Your task to perform on an android device: install app "Booking.com: Hotels and more" Image 0: 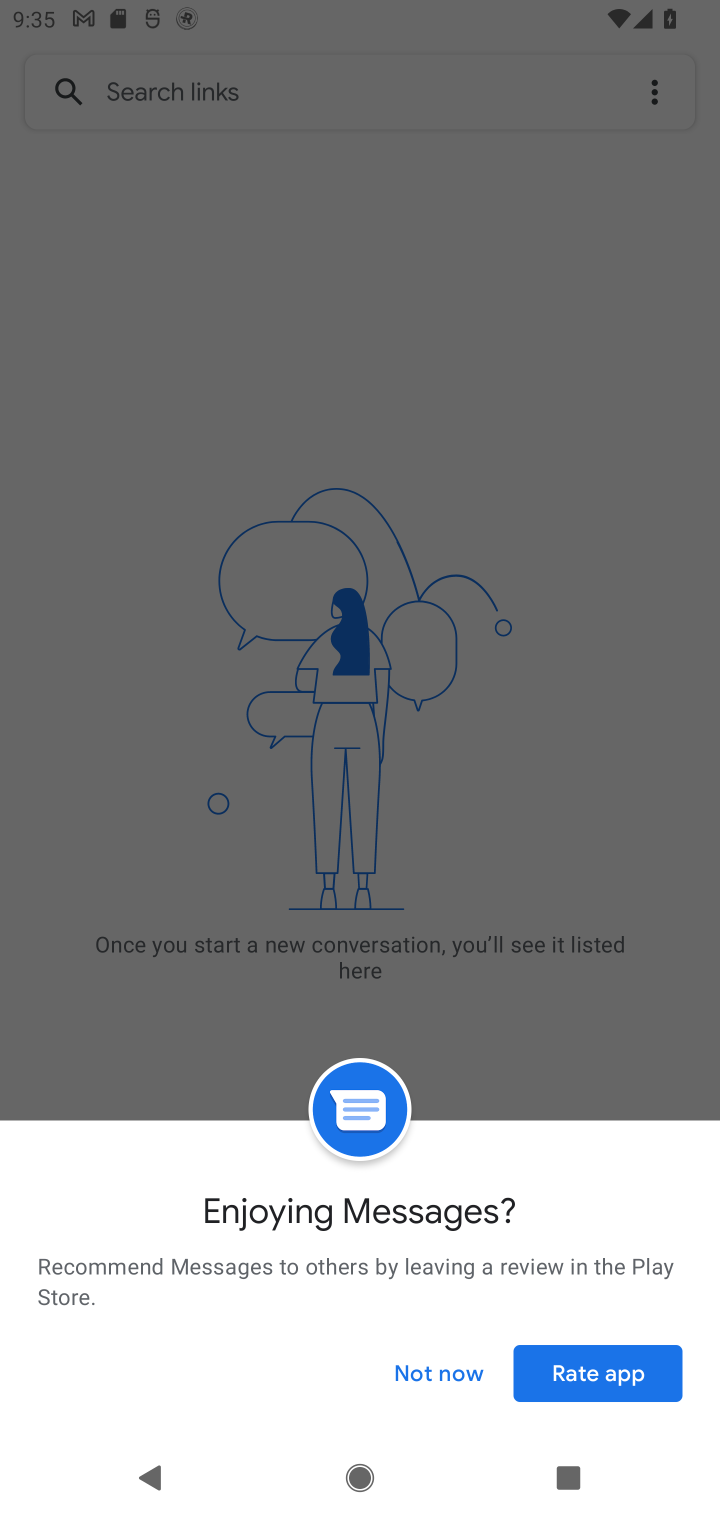
Step 0: press home button
Your task to perform on an android device: install app "Booking.com: Hotels and more" Image 1: 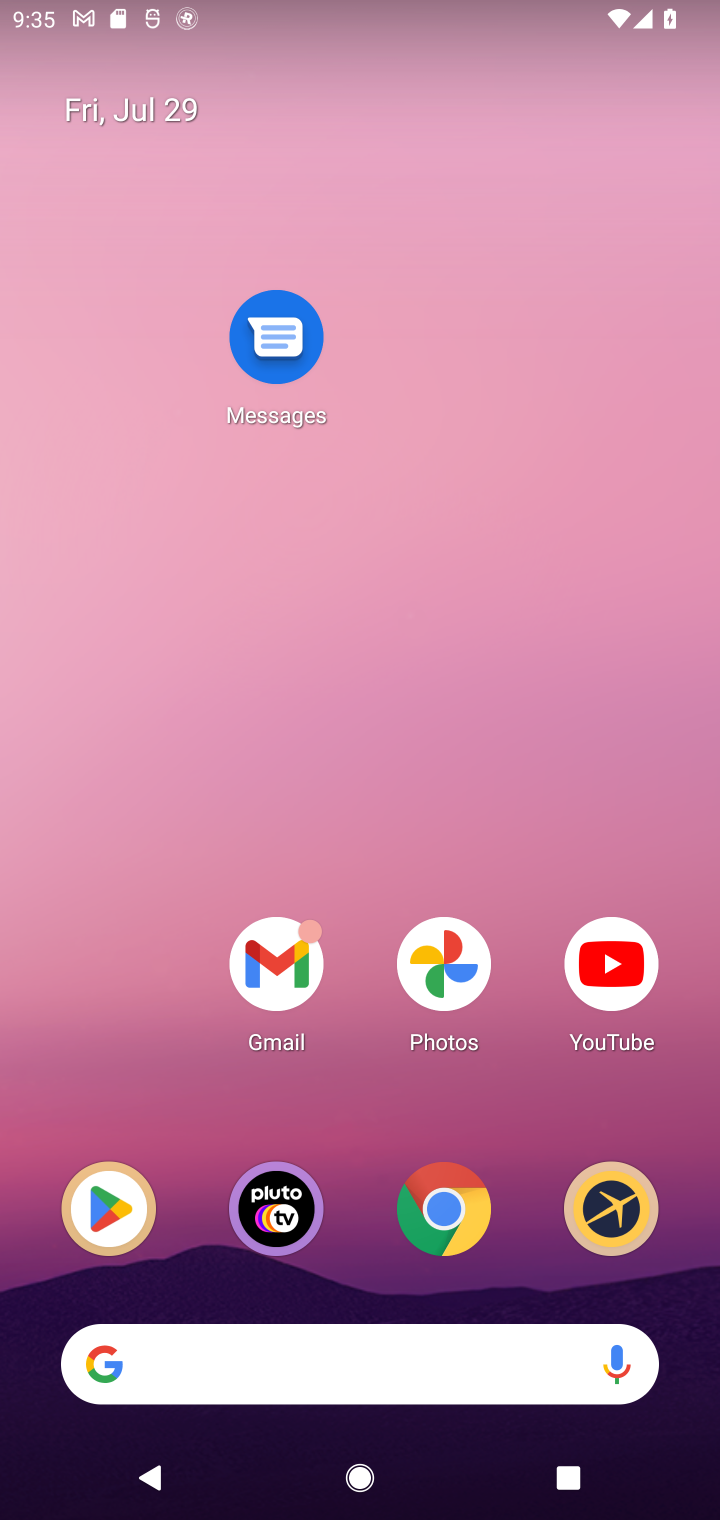
Step 1: drag from (245, 1363) to (415, 198)
Your task to perform on an android device: install app "Booking.com: Hotels and more" Image 2: 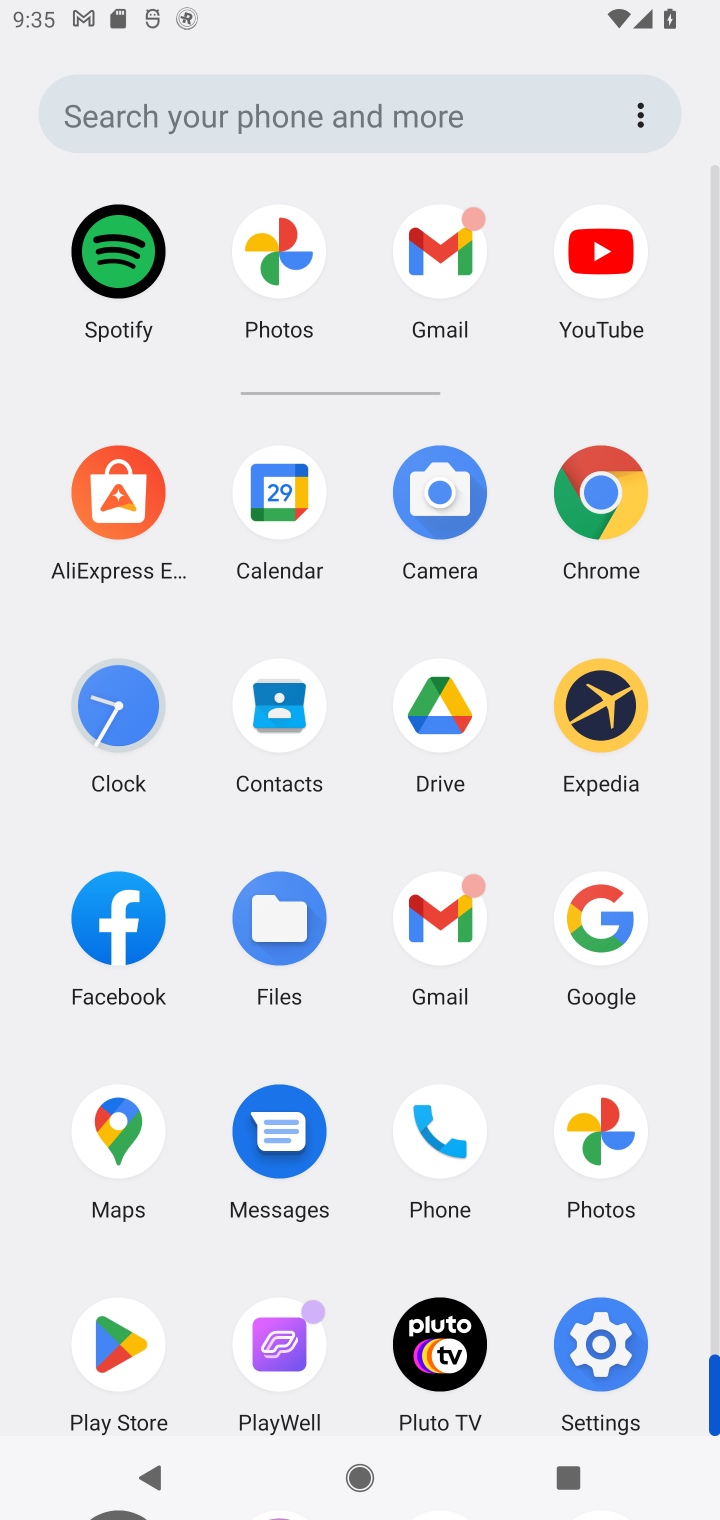
Step 2: drag from (372, 1059) to (371, 554)
Your task to perform on an android device: install app "Booking.com: Hotels and more" Image 3: 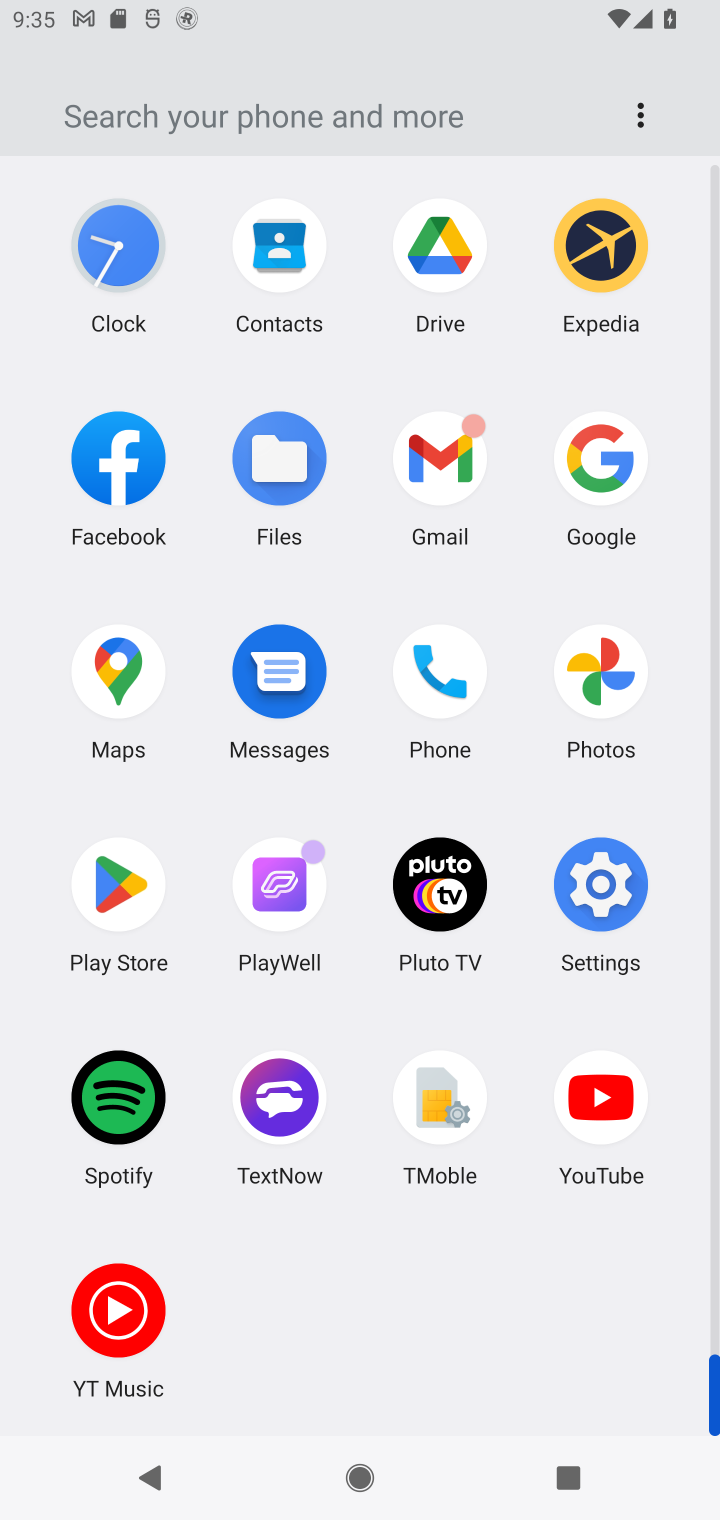
Step 3: click (119, 889)
Your task to perform on an android device: install app "Booking.com: Hotels and more" Image 4: 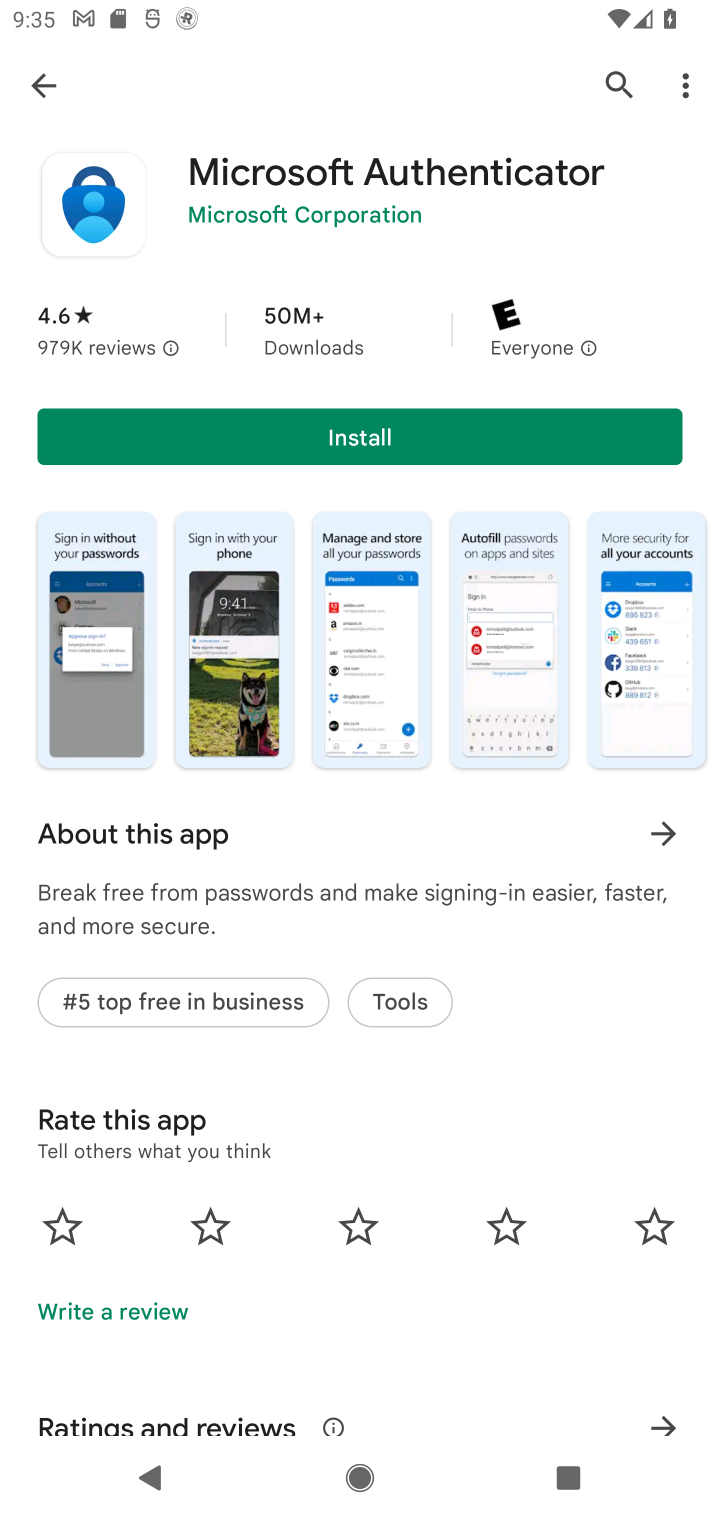
Step 4: click (614, 81)
Your task to perform on an android device: install app "Booking.com: Hotels and more" Image 5: 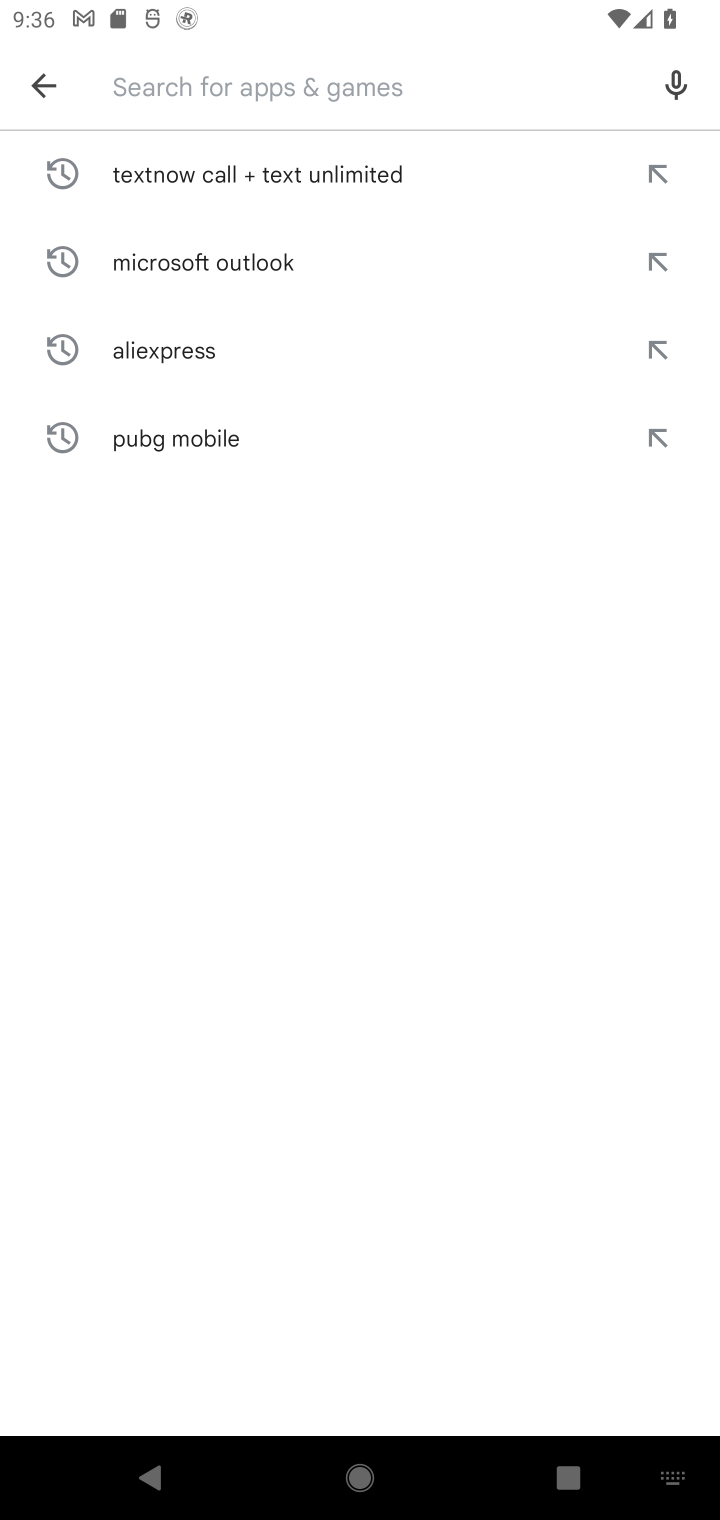
Step 5: click (245, 86)
Your task to perform on an android device: install app "Booking.com: Hotels and more" Image 6: 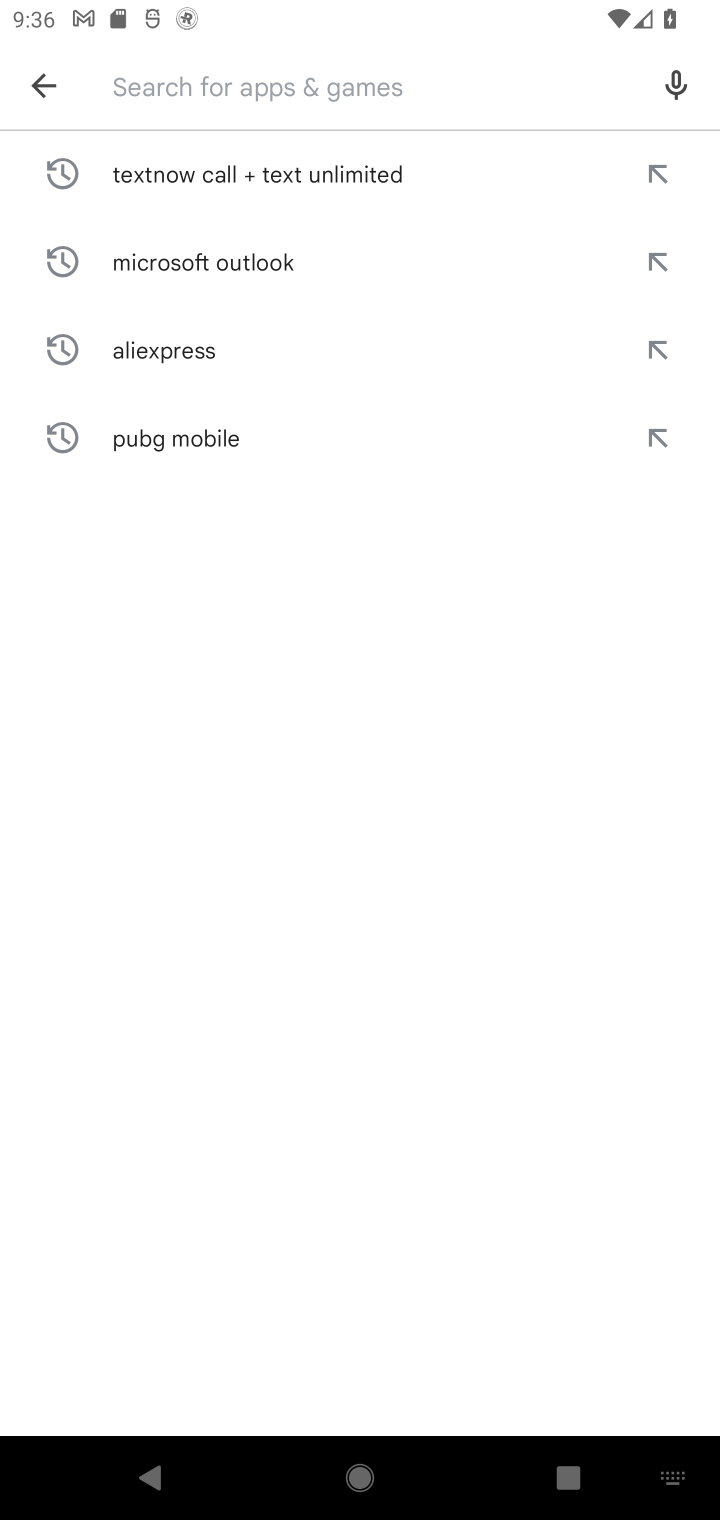
Step 6: click (181, 76)
Your task to perform on an android device: install app "Booking.com: Hotels and more" Image 7: 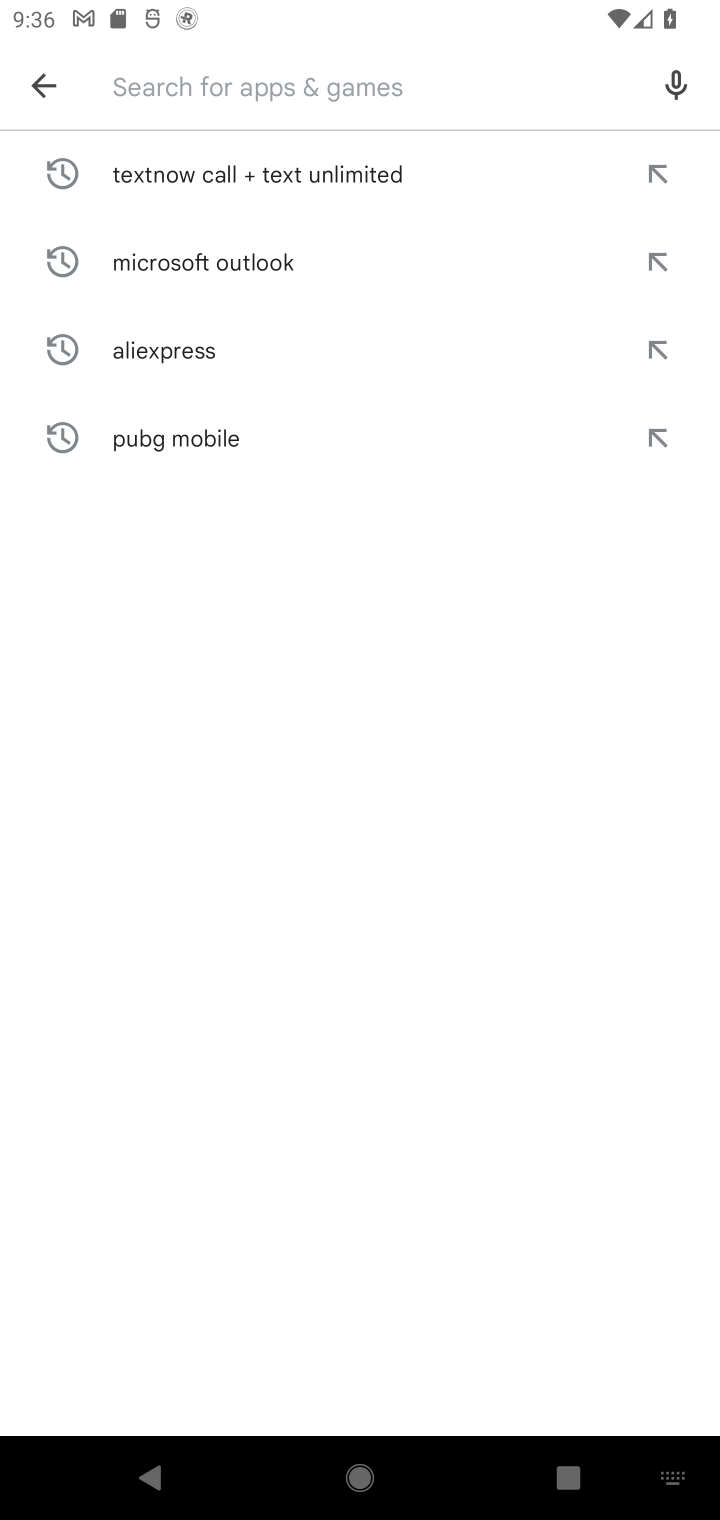
Step 7: type "Booking.com: Hotels and more"
Your task to perform on an android device: install app "Booking.com: Hotels and more" Image 8: 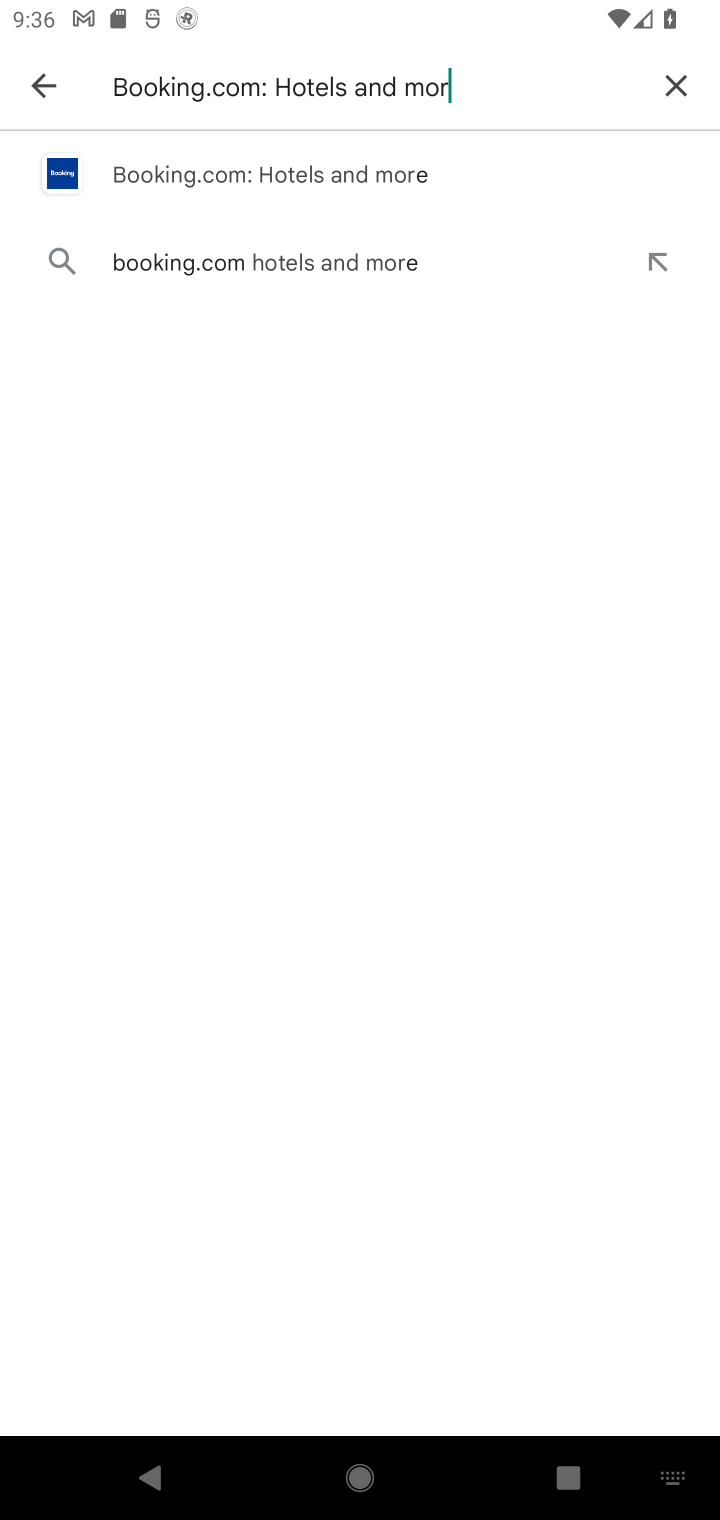
Step 8: type ""
Your task to perform on an android device: install app "Booking.com: Hotels and more" Image 9: 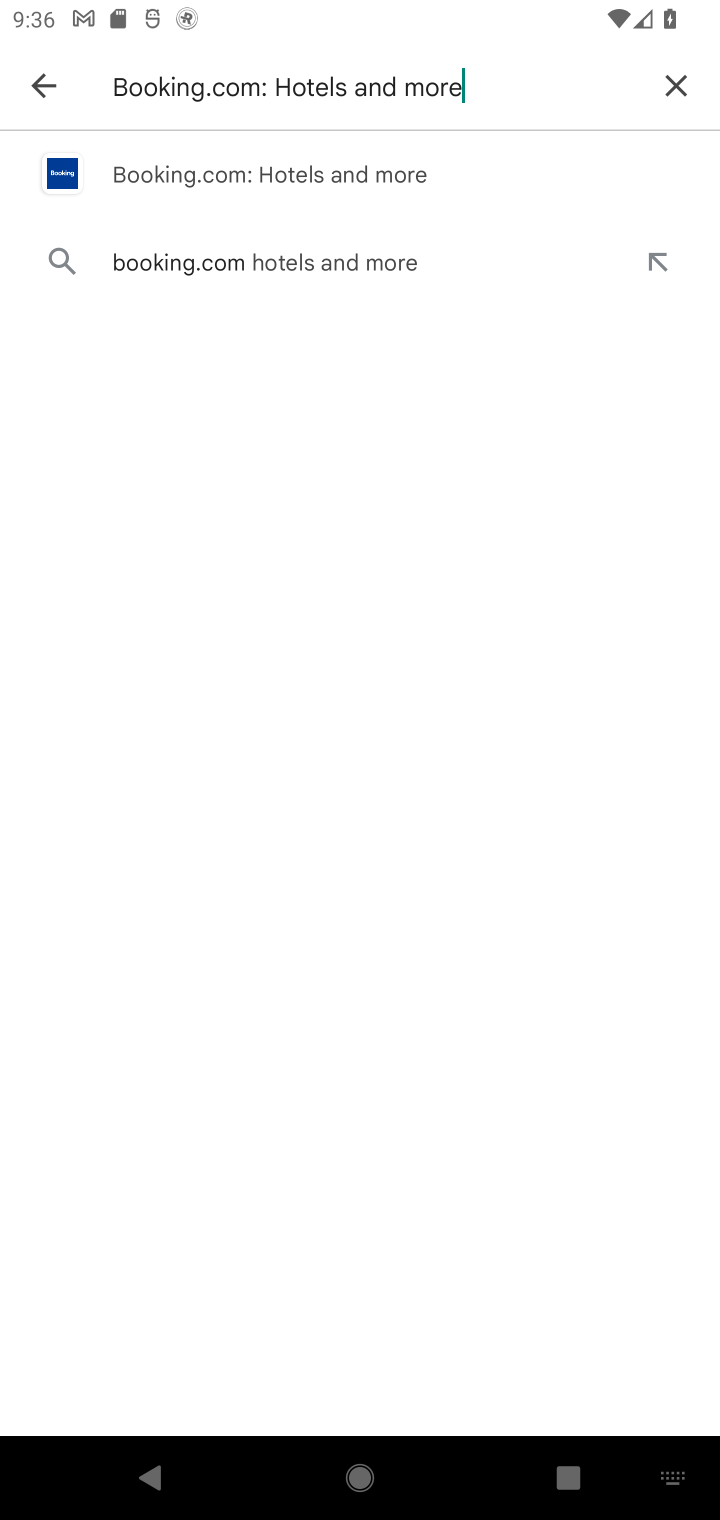
Step 9: click (328, 182)
Your task to perform on an android device: install app "Booking.com: Hotels and more" Image 10: 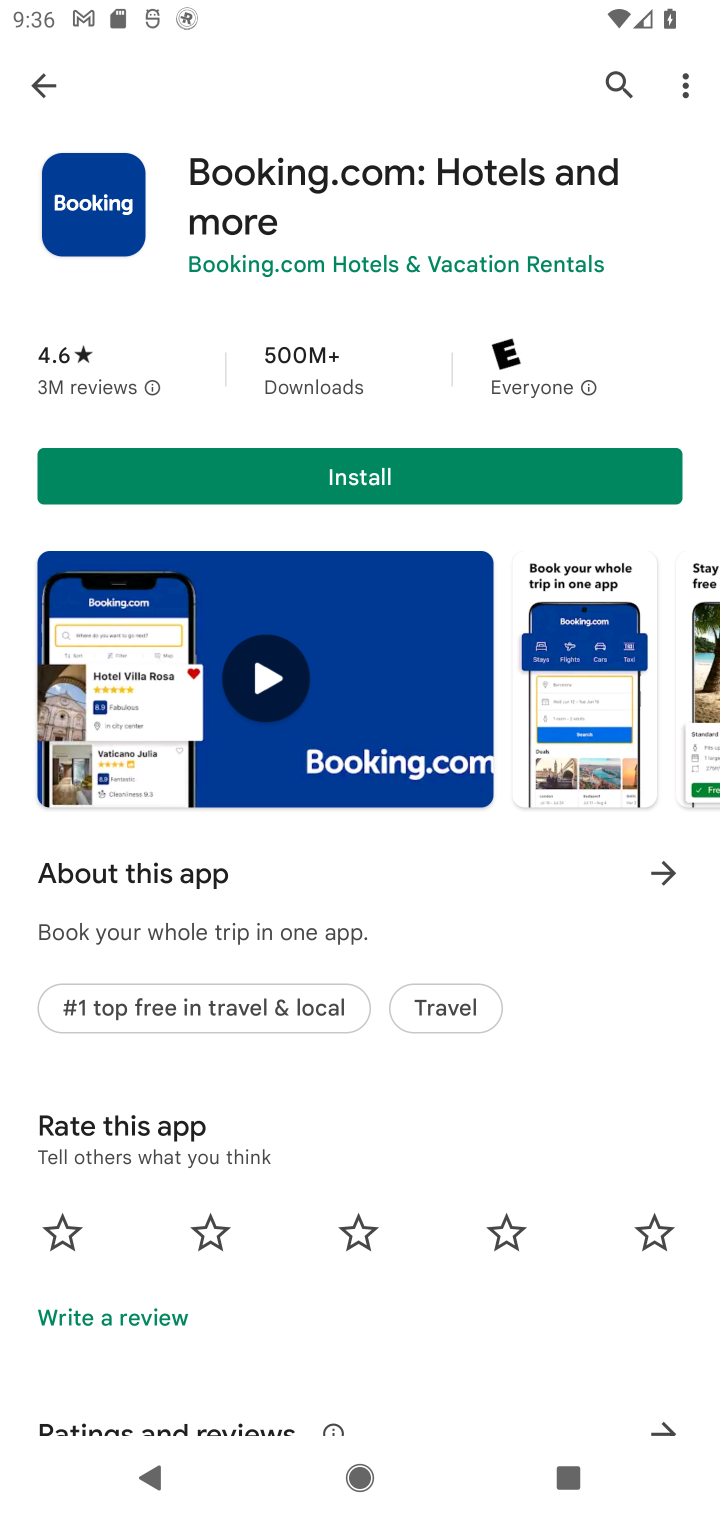
Step 10: click (433, 469)
Your task to perform on an android device: install app "Booking.com: Hotels and more" Image 11: 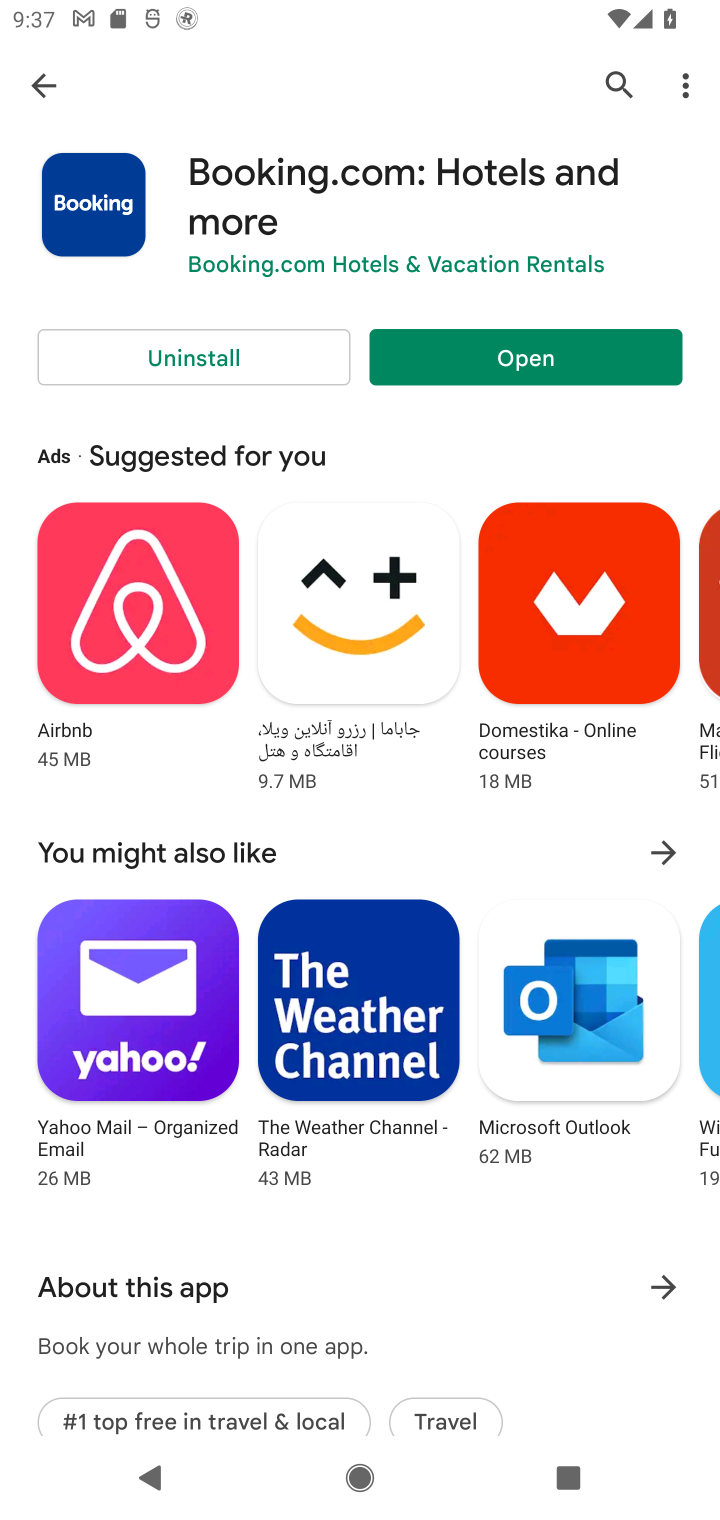
Step 11: task complete